Your task to perform on an android device: set an alarm Image 0: 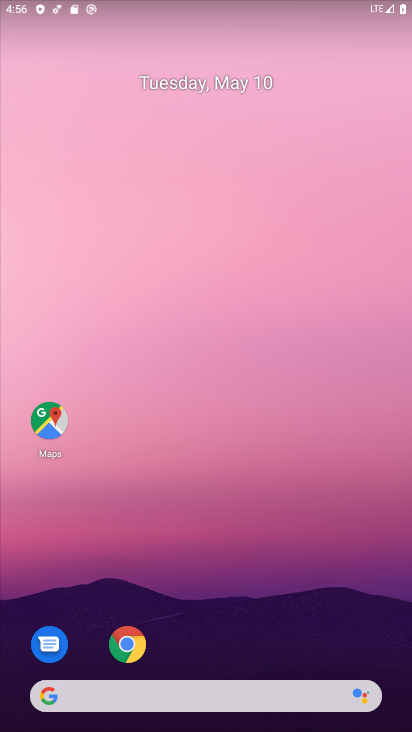
Step 0: press home button
Your task to perform on an android device: set an alarm Image 1: 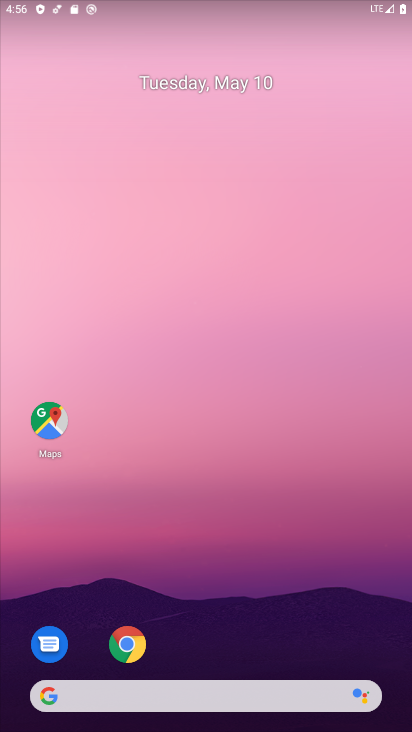
Step 1: click (55, 415)
Your task to perform on an android device: set an alarm Image 2: 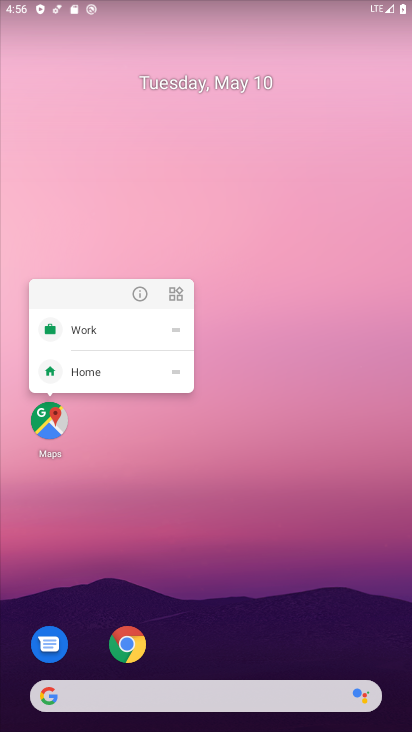
Step 2: drag from (235, 645) to (266, 65)
Your task to perform on an android device: set an alarm Image 3: 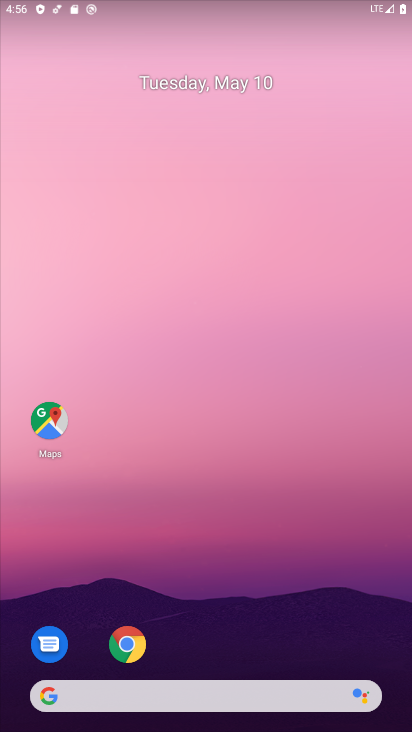
Step 3: drag from (219, 636) to (277, 126)
Your task to perform on an android device: set an alarm Image 4: 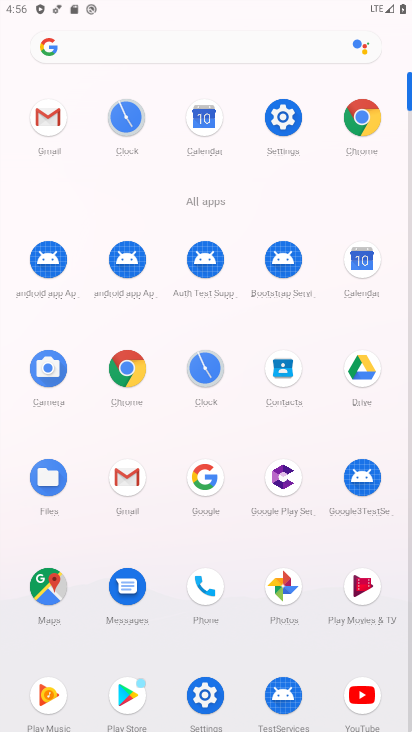
Step 4: click (203, 364)
Your task to perform on an android device: set an alarm Image 5: 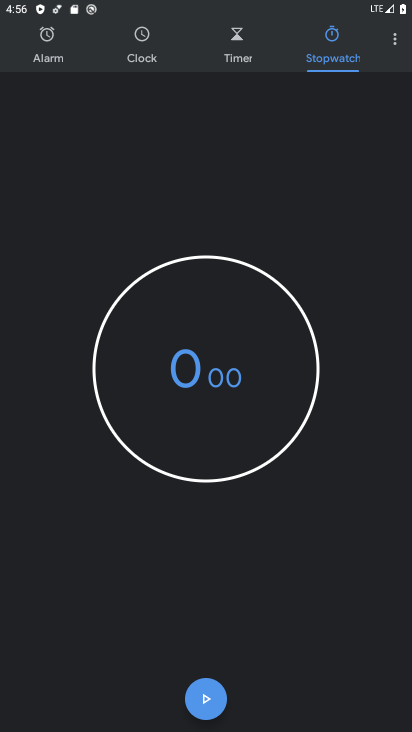
Step 5: click (48, 47)
Your task to perform on an android device: set an alarm Image 6: 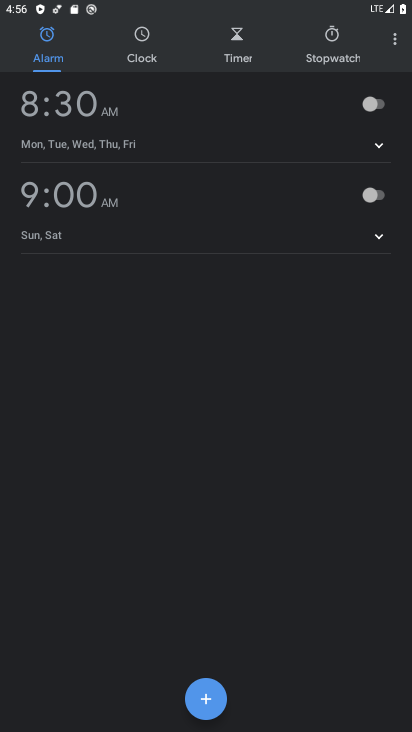
Step 6: click (373, 105)
Your task to perform on an android device: set an alarm Image 7: 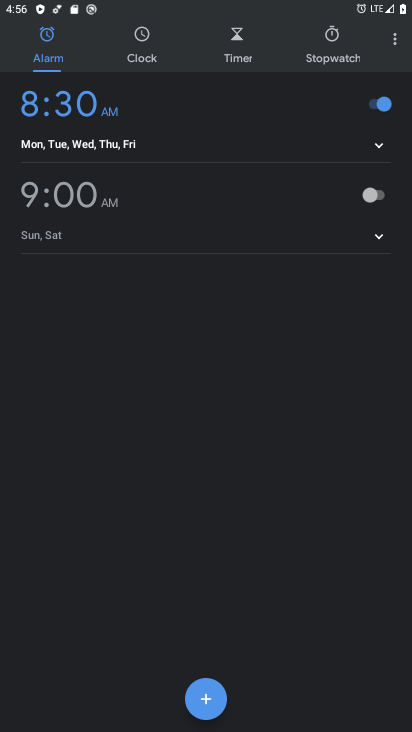
Step 7: task complete